Your task to perform on an android device: manage bookmarks in the chrome app Image 0: 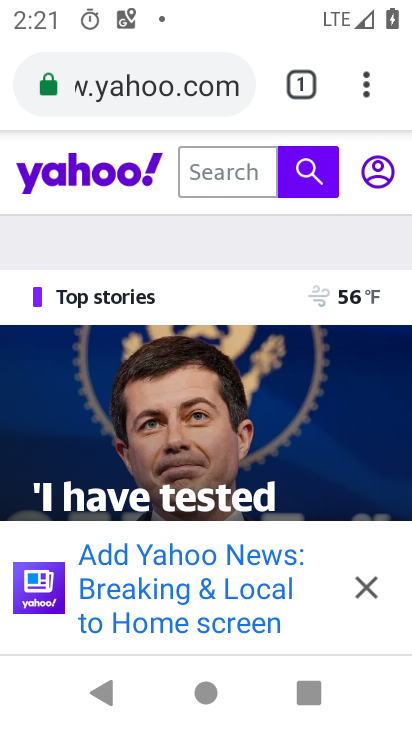
Step 0: press home button
Your task to perform on an android device: manage bookmarks in the chrome app Image 1: 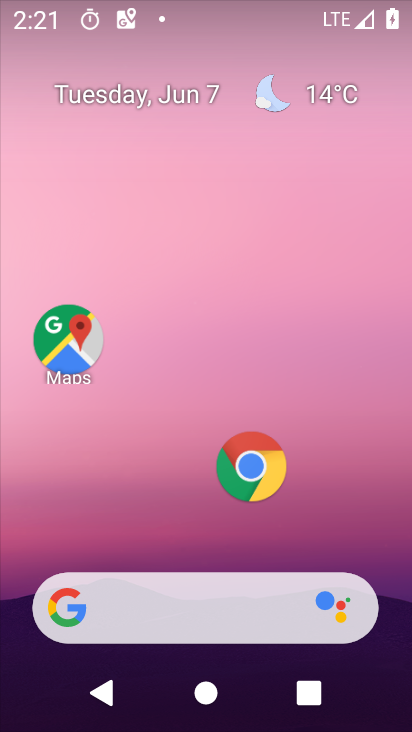
Step 1: click (248, 484)
Your task to perform on an android device: manage bookmarks in the chrome app Image 2: 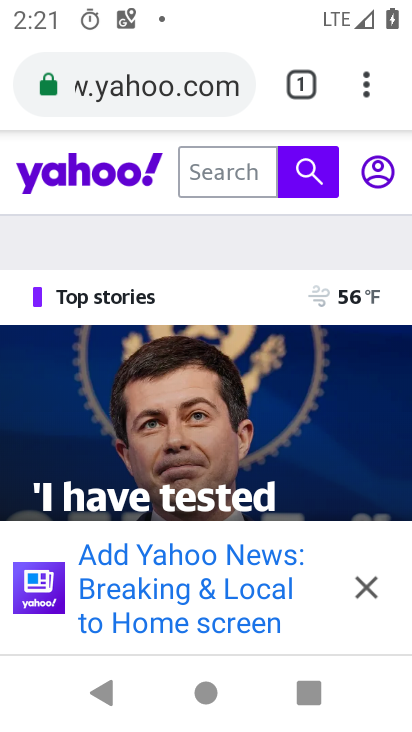
Step 2: click (366, 96)
Your task to perform on an android device: manage bookmarks in the chrome app Image 3: 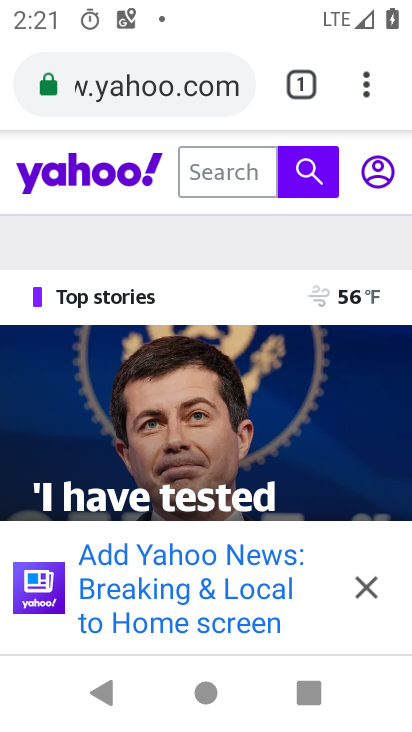
Step 3: click (372, 92)
Your task to perform on an android device: manage bookmarks in the chrome app Image 4: 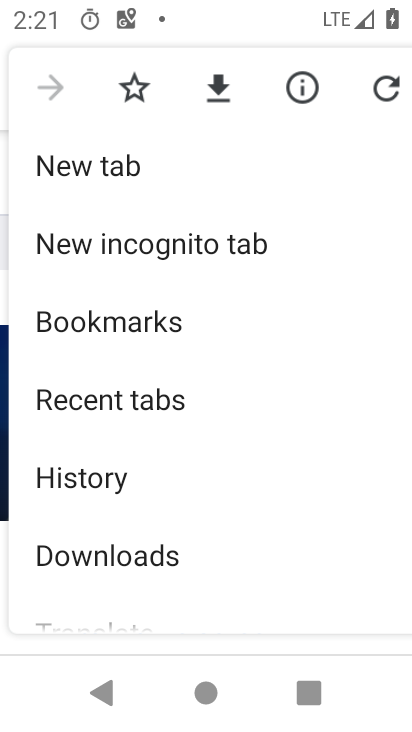
Step 4: click (127, 320)
Your task to perform on an android device: manage bookmarks in the chrome app Image 5: 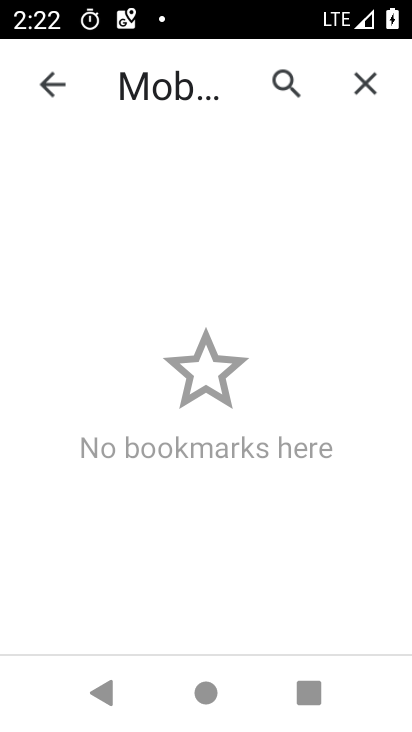
Step 5: task complete